Your task to perform on an android device: Open Google Image 0: 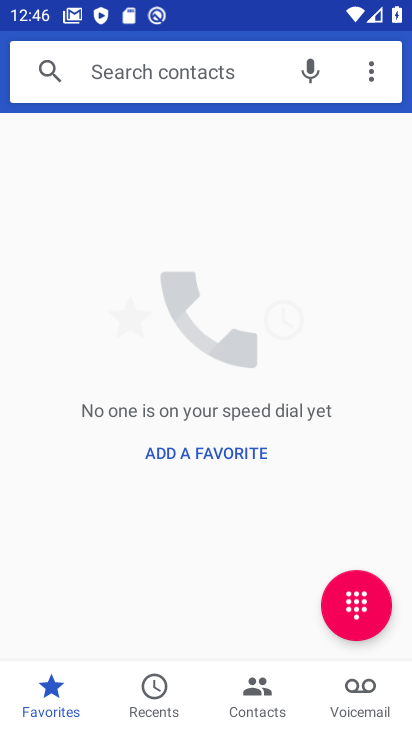
Step 0: press home button
Your task to perform on an android device: Open Google Image 1: 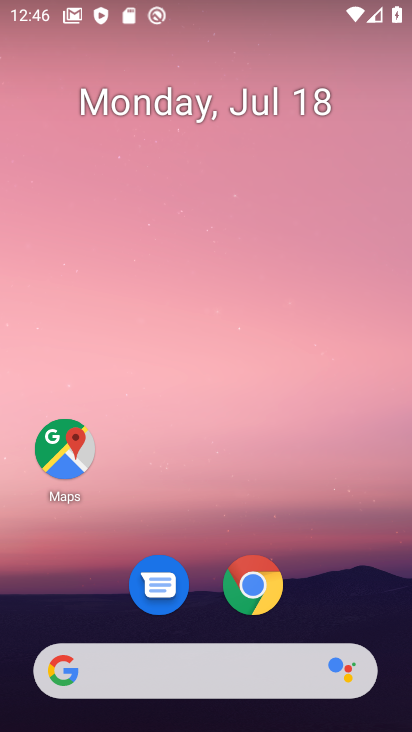
Step 1: drag from (200, 573) to (302, 31)
Your task to perform on an android device: Open Google Image 2: 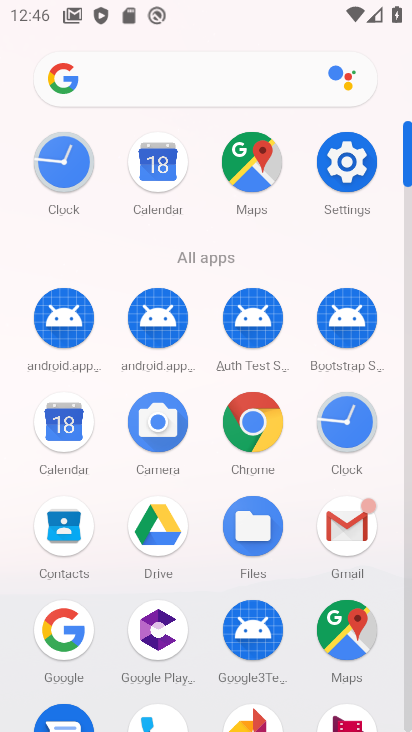
Step 2: click (72, 646)
Your task to perform on an android device: Open Google Image 3: 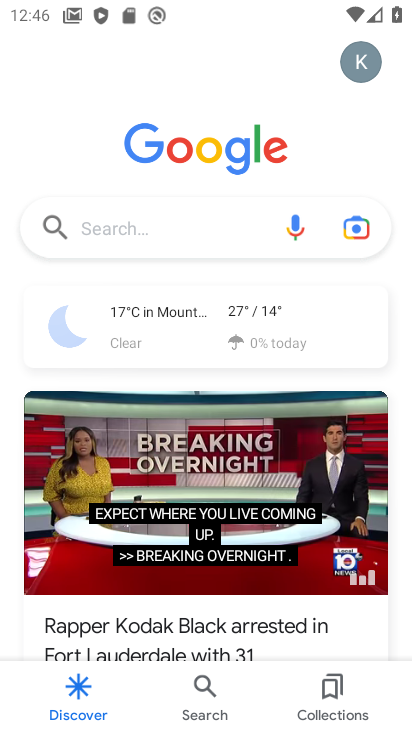
Step 3: task complete